Your task to perform on an android device: Open Chrome and go to the settings page Image 0: 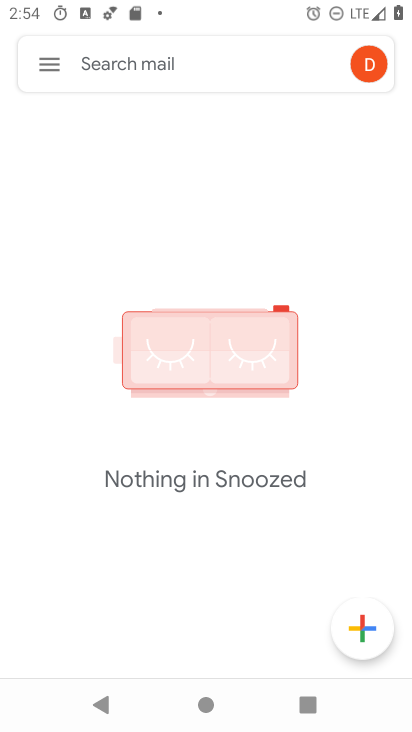
Step 0: press home button
Your task to perform on an android device: Open Chrome and go to the settings page Image 1: 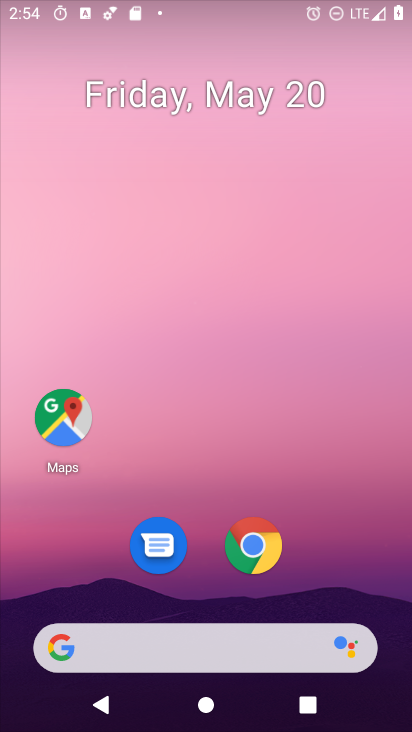
Step 1: drag from (299, 537) to (302, 106)
Your task to perform on an android device: Open Chrome and go to the settings page Image 2: 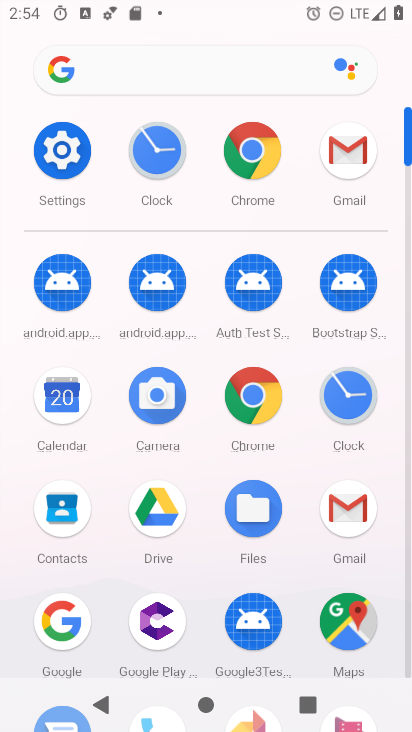
Step 2: click (244, 377)
Your task to perform on an android device: Open Chrome and go to the settings page Image 3: 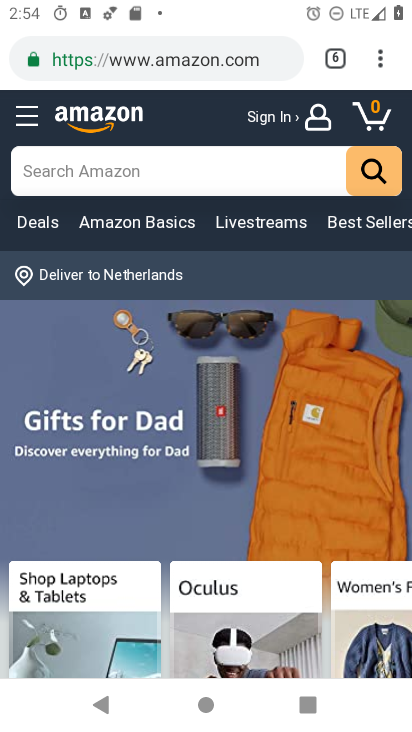
Step 3: task complete